Your task to perform on an android device: turn on translation in the chrome app Image 0: 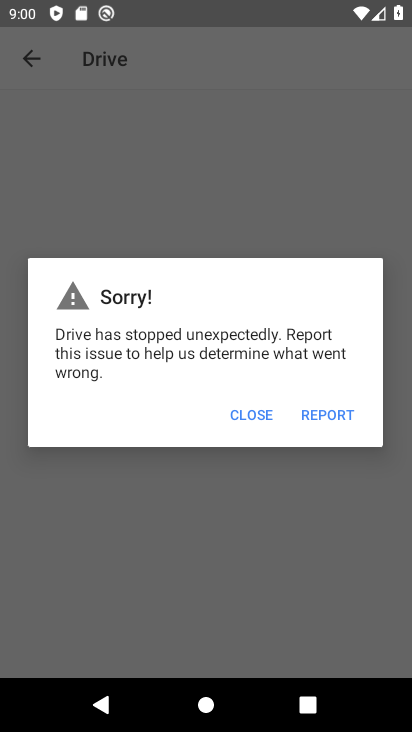
Step 0: press home button
Your task to perform on an android device: turn on translation in the chrome app Image 1: 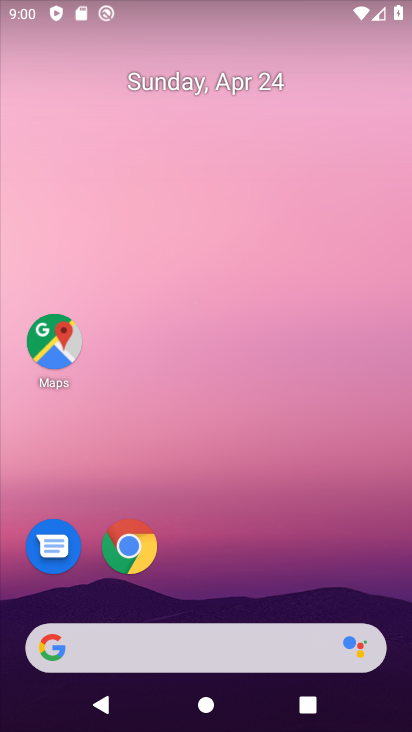
Step 1: click (135, 553)
Your task to perform on an android device: turn on translation in the chrome app Image 2: 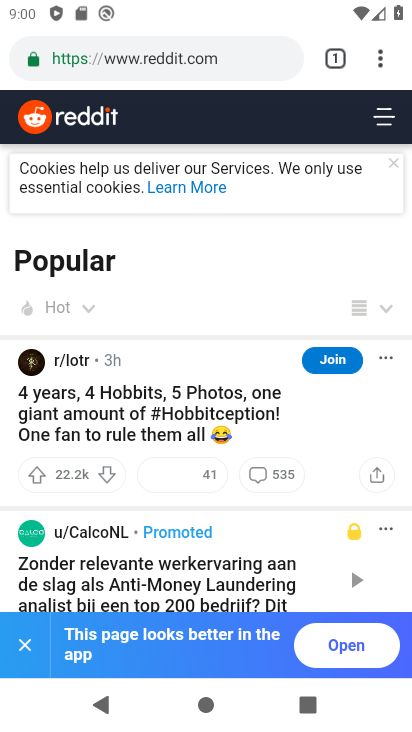
Step 2: click (371, 57)
Your task to perform on an android device: turn on translation in the chrome app Image 3: 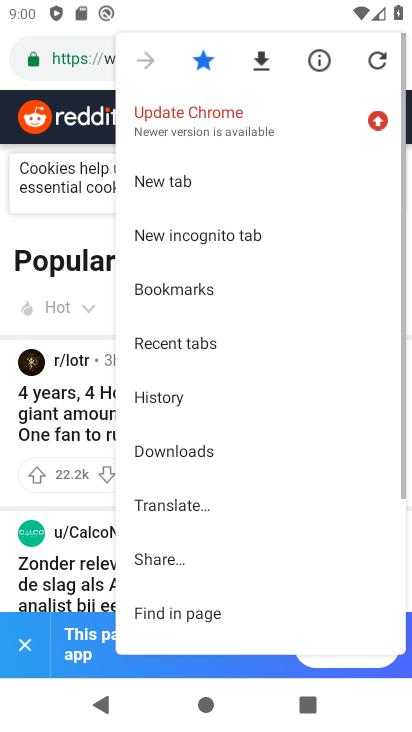
Step 3: drag from (182, 528) to (269, 126)
Your task to perform on an android device: turn on translation in the chrome app Image 4: 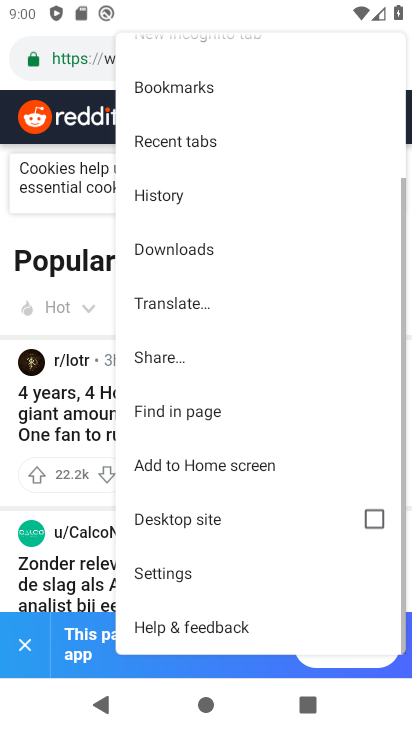
Step 4: click (167, 574)
Your task to perform on an android device: turn on translation in the chrome app Image 5: 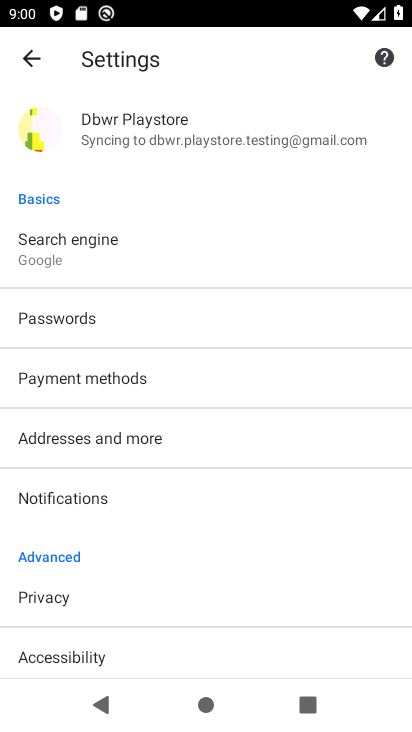
Step 5: drag from (146, 465) to (242, 139)
Your task to perform on an android device: turn on translation in the chrome app Image 6: 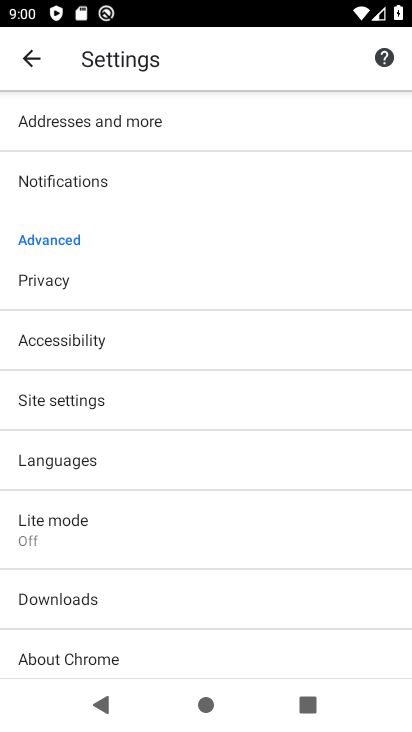
Step 6: click (147, 463)
Your task to perform on an android device: turn on translation in the chrome app Image 7: 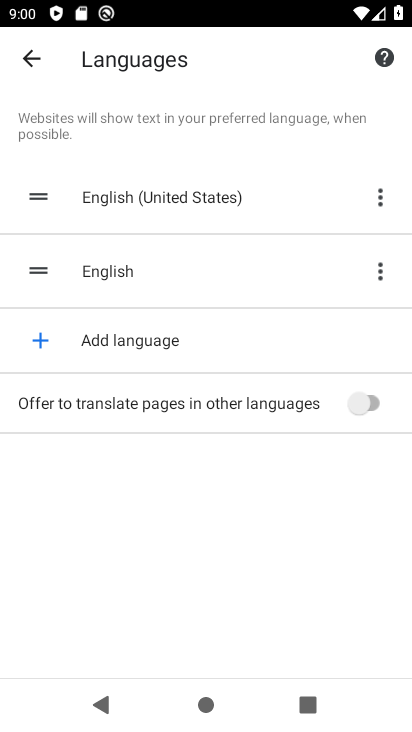
Step 7: click (363, 410)
Your task to perform on an android device: turn on translation in the chrome app Image 8: 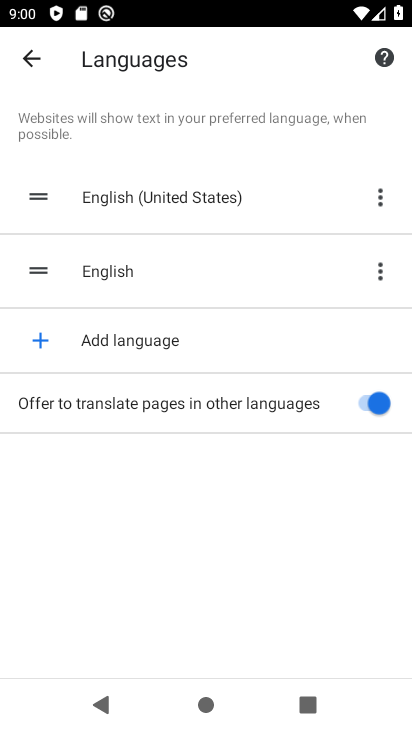
Step 8: task complete